Your task to perform on an android device: Open Google Maps and go to "Timeline" Image 0: 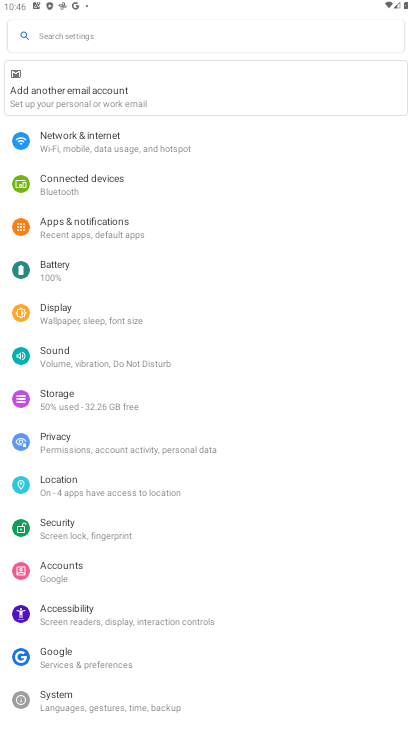
Step 0: press home button
Your task to perform on an android device: Open Google Maps and go to "Timeline" Image 1: 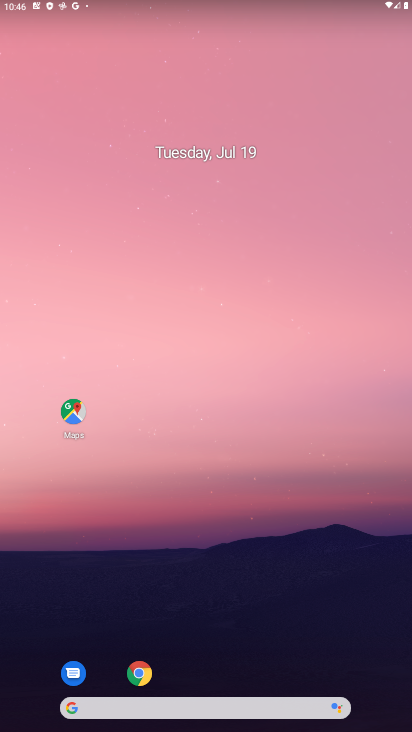
Step 1: drag from (241, 650) to (193, 305)
Your task to perform on an android device: Open Google Maps and go to "Timeline" Image 2: 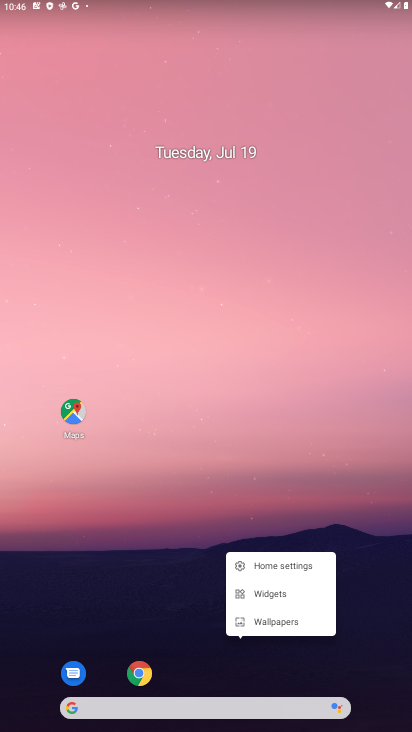
Step 2: click (71, 407)
Your task to perform on an android device: Open Google Maps and go to "Timeline" Image 3: 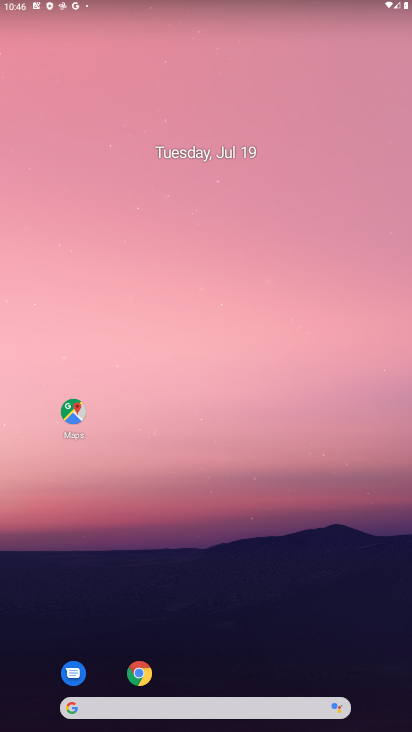
Step 3: click (71, 407)
Your task to perform on an android device: Open Google Maps and go to "Timeline" Image 4: 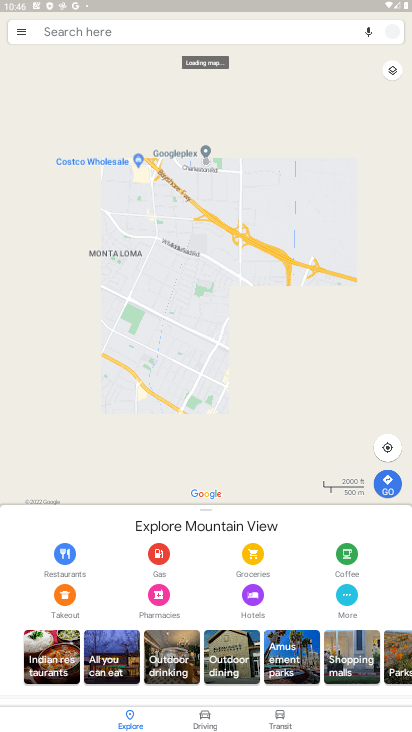
Step 4: click (22, 33)
Your task to perform on an android device: Open Google Maps and go to "Timeline" Image 5: 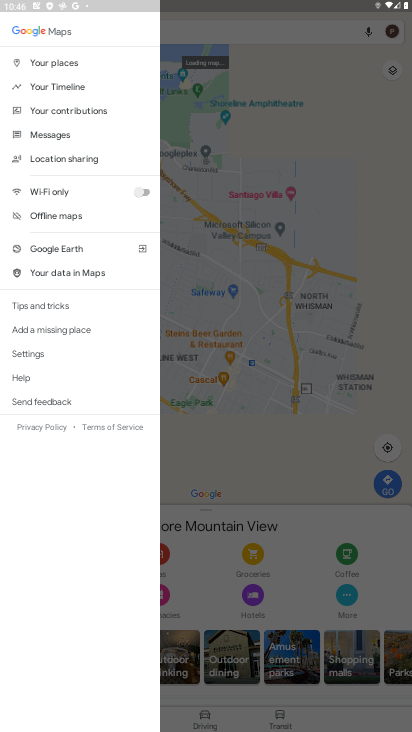
Step 5: click (57, 92)
Your task to perform on an android device: Open Google Maps and go to "Timeline" Image 6: 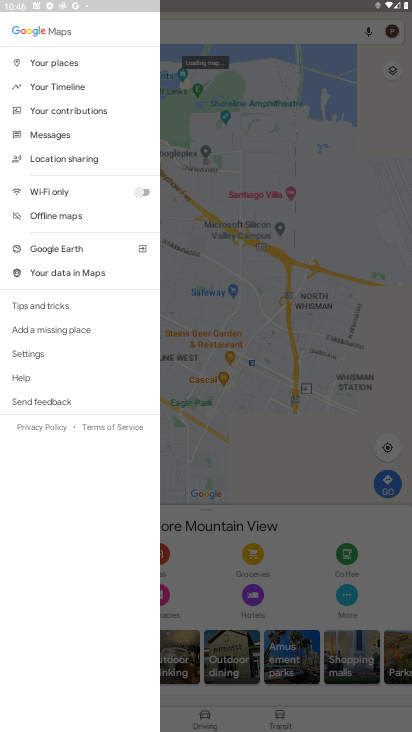
Step 6: task complete